Your task to perform on an android device: set the timer Image 0: 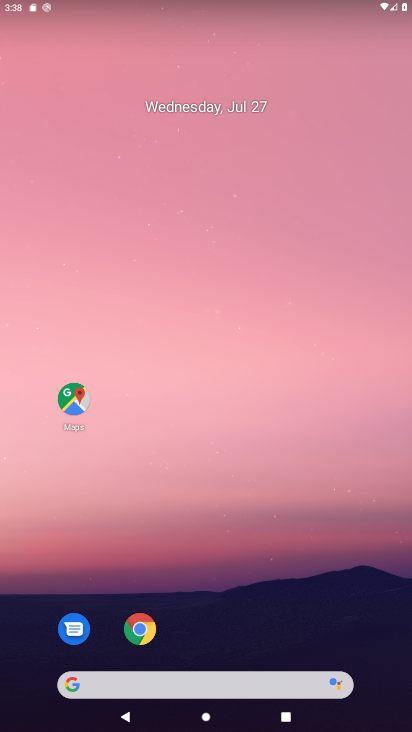
Step 0: press home button
Your task to perform on an android device: set the timer Image 1: 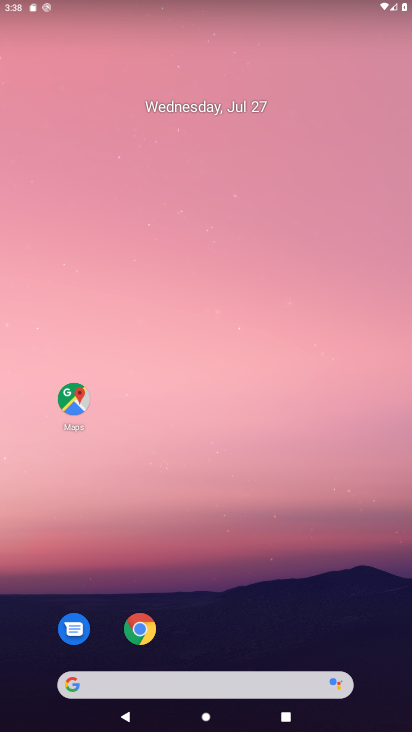
Step 1: drag from (290, 677) to (277, 428)
Your task to perform on an android device: set the timer Image 2: 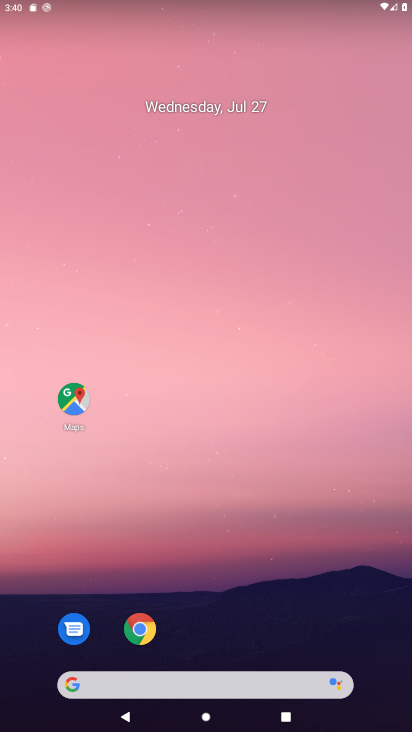
Step 2: drag from (223, 702) to (207, 39)
Your task to perform on an android device: set the timer Image 3: 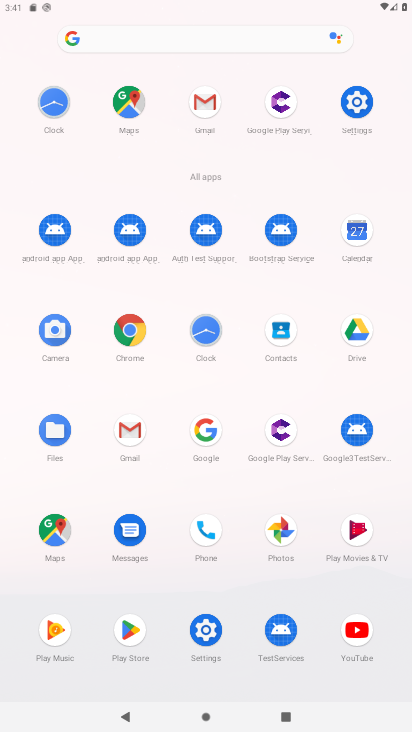
Step 3: click (201, 337)
Your task to perform on an android device: set the timer Image 4: 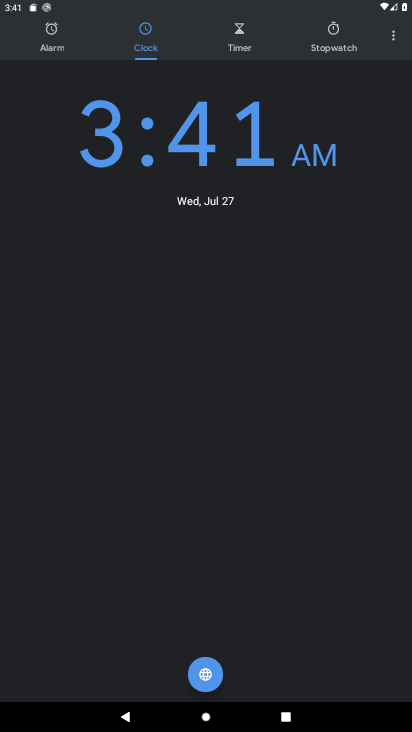
Step 4: click (385, 53)
Your task to perform on an android device: set the timer Image 5: 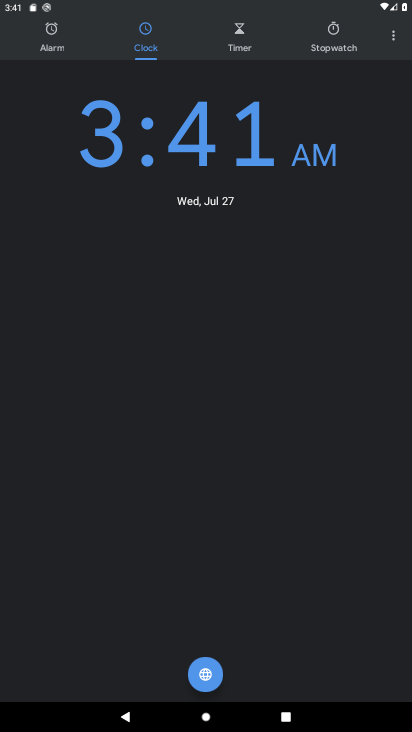
Step 5: click (232, 27)
Your task to perform on an android device: set the timer Image 6: 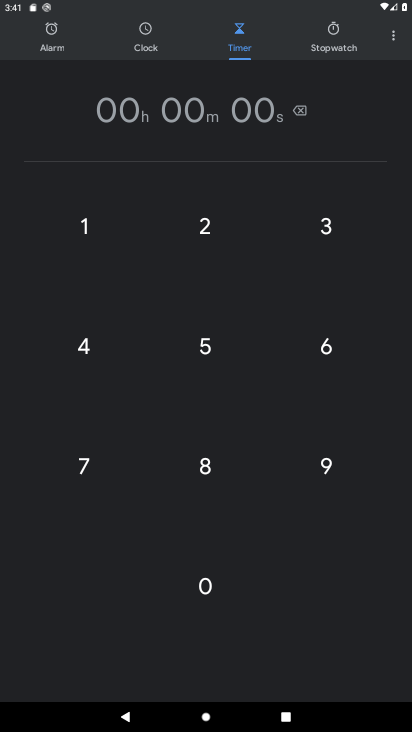
Step 6: click (189, 396)
Your task to perform on an android device: set the timer Image 7: 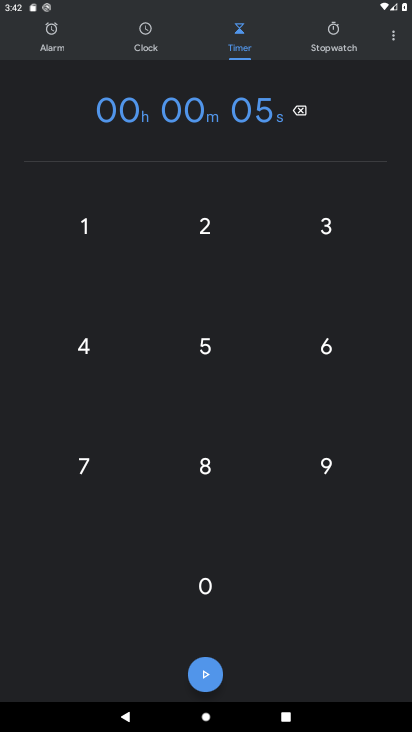
Step 7: click (220, 369)
Your task to perform on an android device: set the timer Image 8: 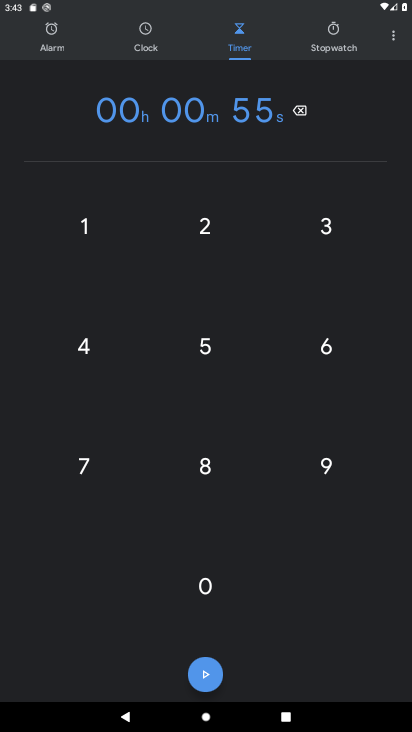
Step 8: click (236, 464)
Your task to perform on an android device: set the timer Image 9: 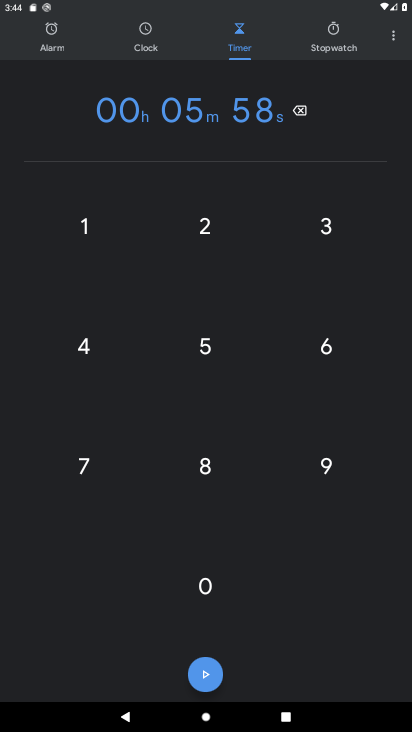
Step 9: click (196, 487)
Your task to perform on an android device: set the timer Image 10: 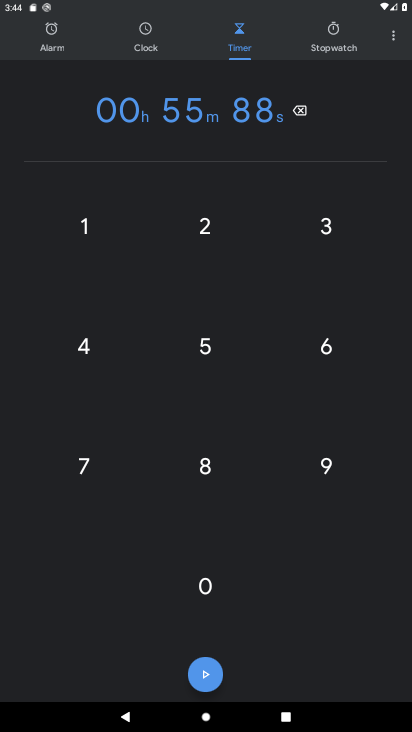
Step 10: click (211, 670)
Your task to perform on an android device: set the timer Image 11: 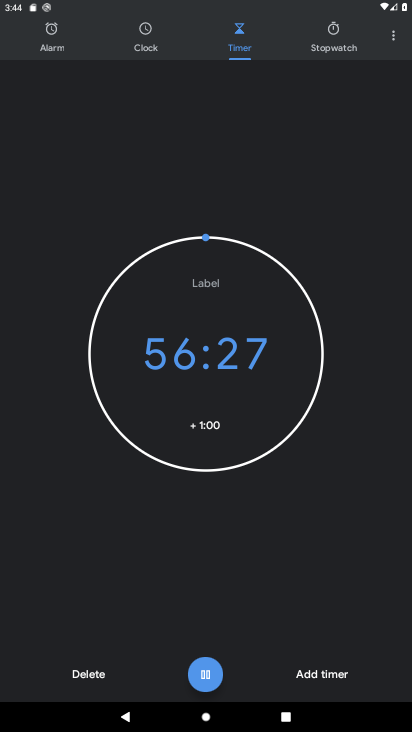
Step 11: task complete